Your task to perform on an android device: Open the calendar and show me this week's events Image 0: 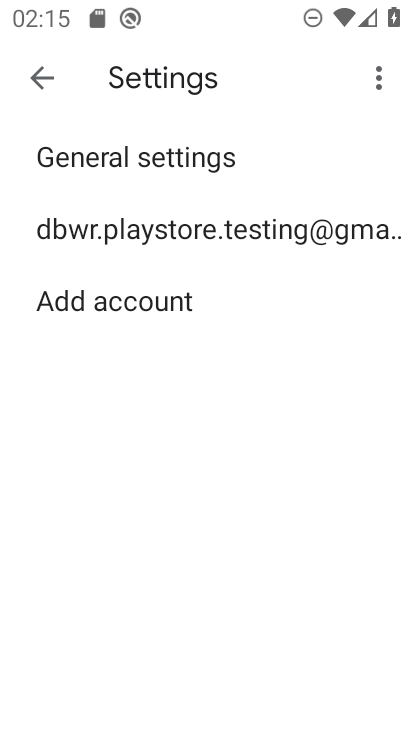
Step 0: press home button
Your task to perform on an android device: Open the calendar and show me this week's events Image 1: 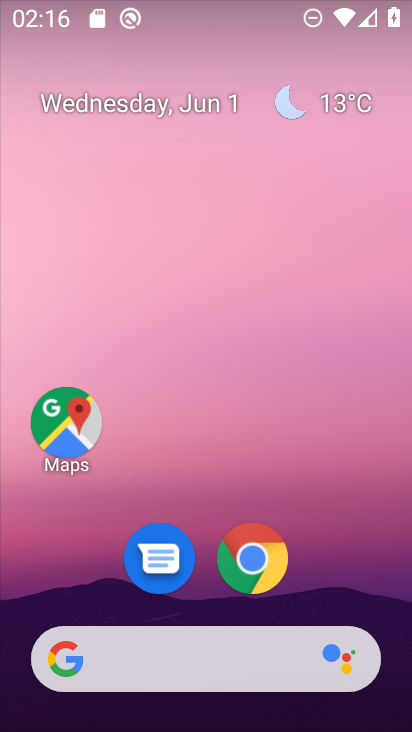
Step 1: drag from (403, 690) to (364, 77)
Your task to perform on an android device: Open the calendar and show me this week's events Image 2: 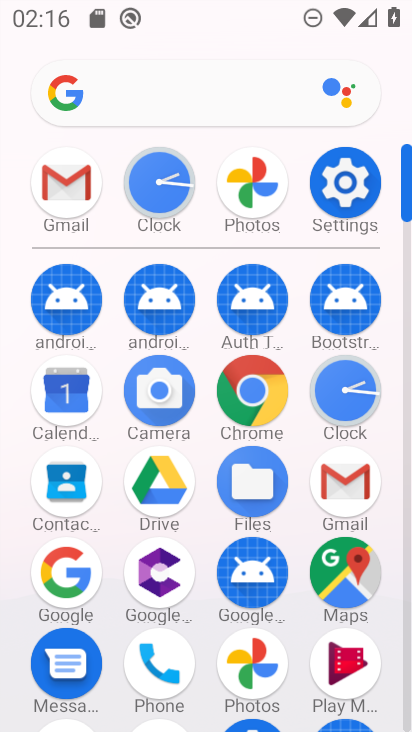
Step 2: drag from (203, 630) to (226, 259)
Your task to perform on an android device: Open the calendar and show me this week's events Image 3: 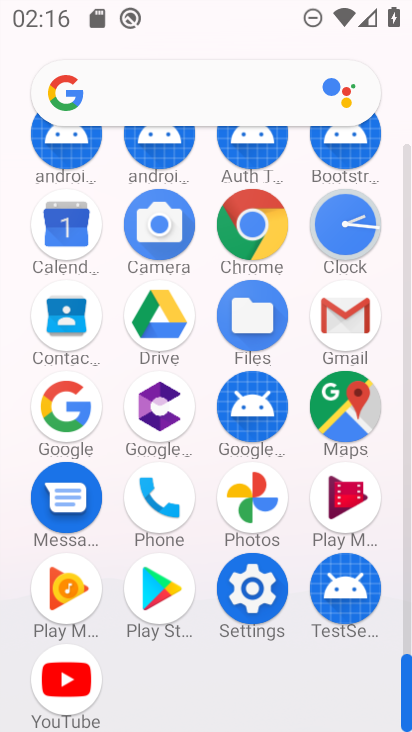
Step 3: click (75, 222)
Your task to perform on an android device: Open the calendar and show me this week's events Image 4: 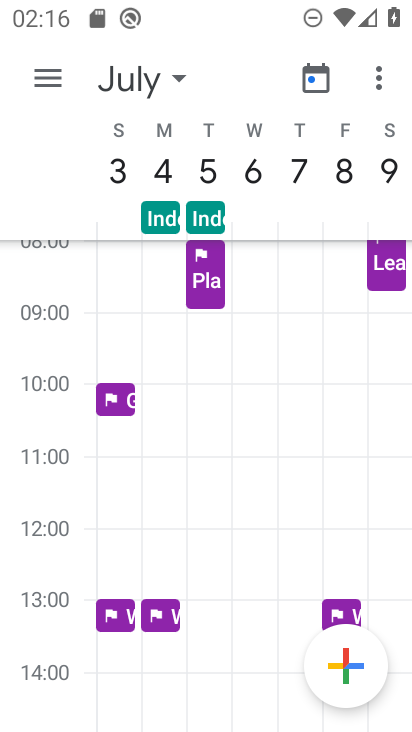
Step 4: click (170, 76)
Your task to perform on an android device: Open the calendar and show me this week's events Image 5: 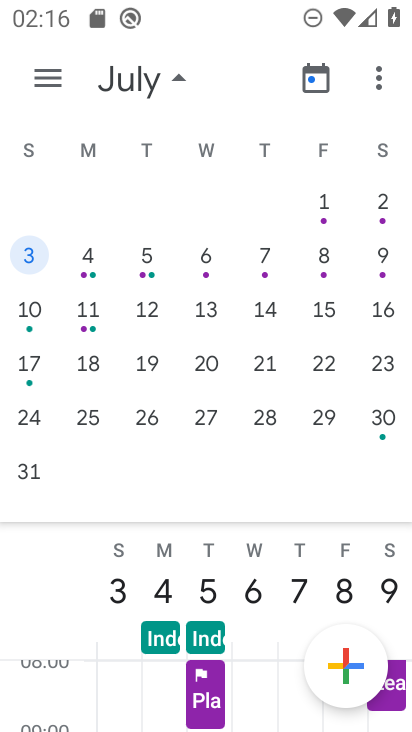
Step 5: drag from (27, 296) to (388, 282)
Your task to perform on an android device: Open the calendar and show me this week's events Image 6: 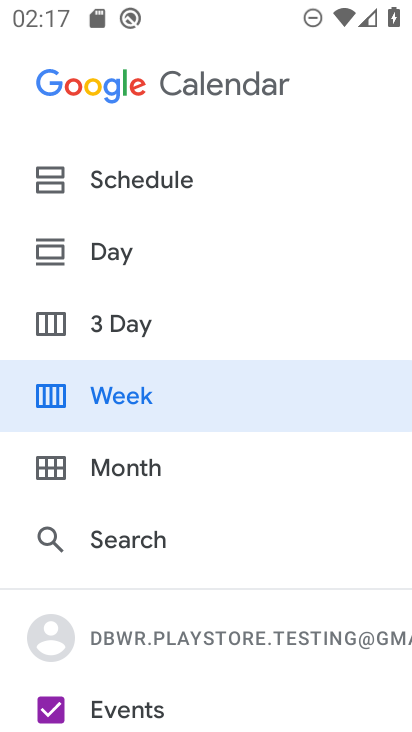
Step 6: press back button
Your task to perform on an android device: Open the calendar and show me this week's events Image 7: 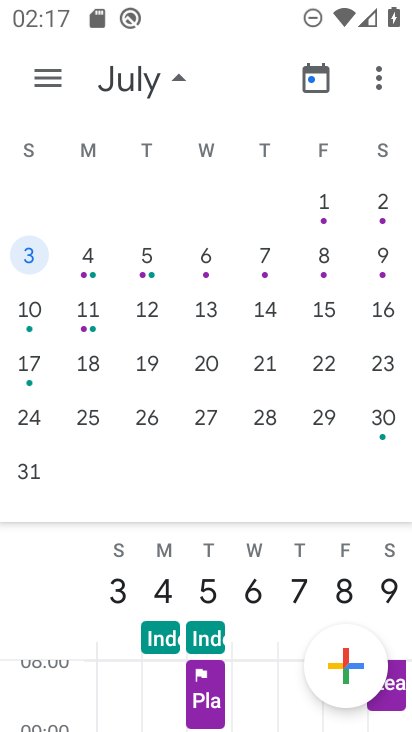
Step 7: drag from (85, 300) to (338, 311)
Your task to perform on an android device: Open the calendar and show me this week's events Image 8: 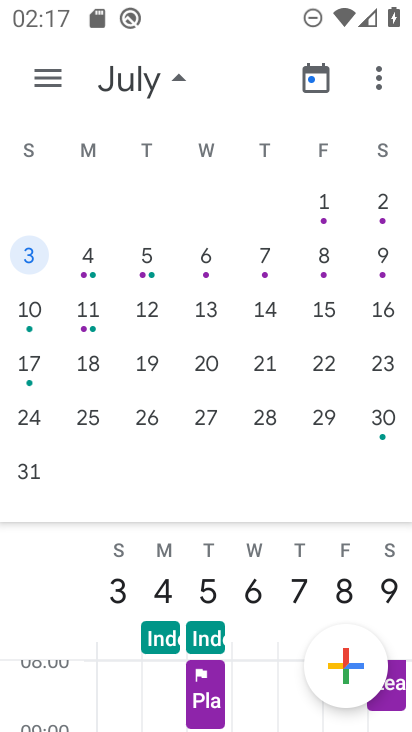
Step 8: drag from (66, 201) to (351, 168)
Your task to perform on an android device: Open the calendar and show me this week's events Image 9: 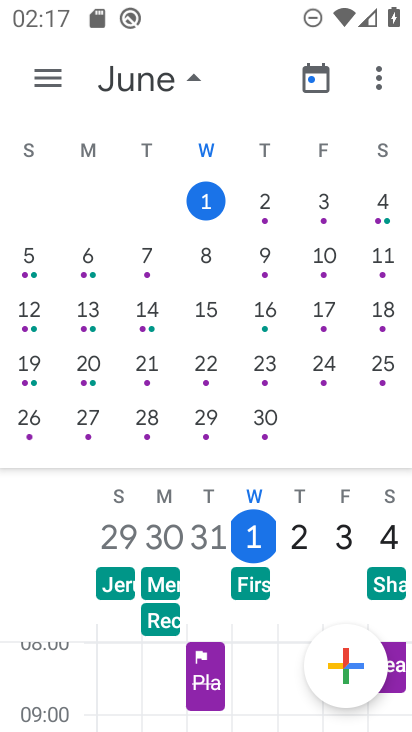
Step 9: click (268, 197)
Your task to perform on an android device: Open the calendar and show me this week's events Image 10: 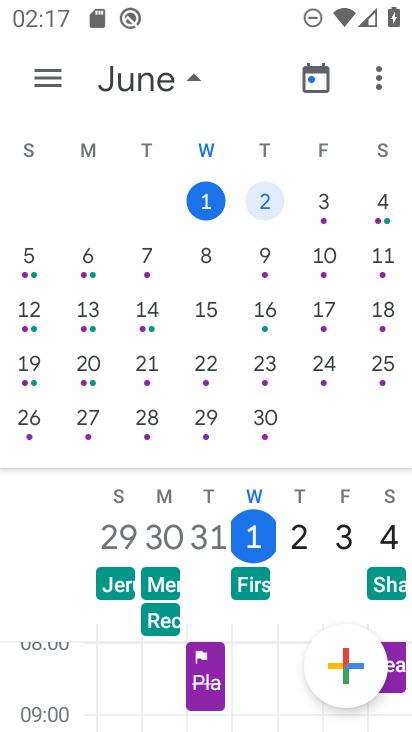
Step 10: click (48, 77)
Your task to perform on an android device: Open the calendar and show me this week's events Image 11: 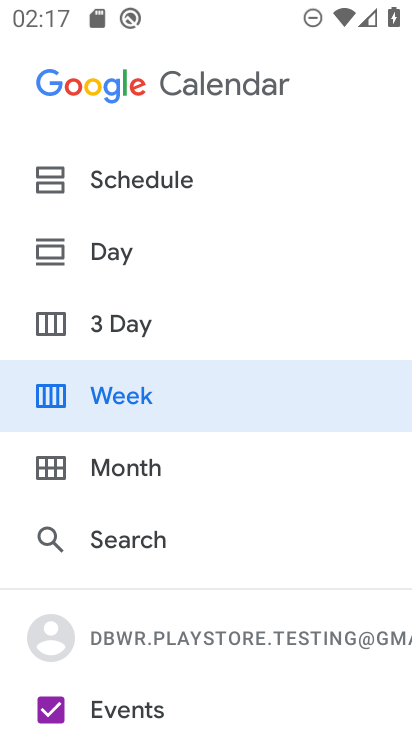
Step 11: click (100, 397)
Your task to perform on an android device: Open the calendar and show me this week's events Image 12: 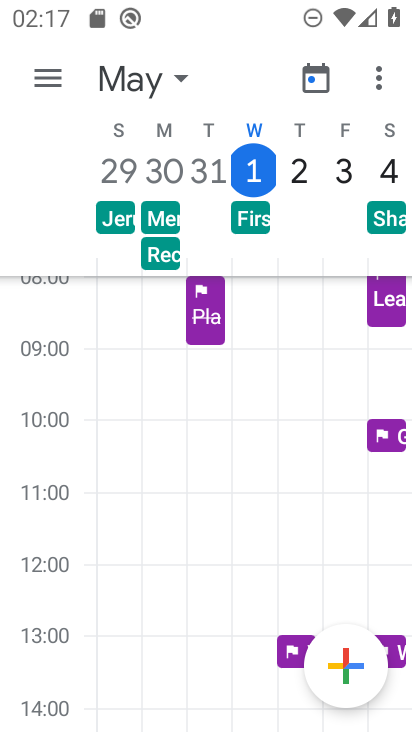
Step 12: task complete